Your task to perform on an android device: toggle javascript in the chrome app Image 0: 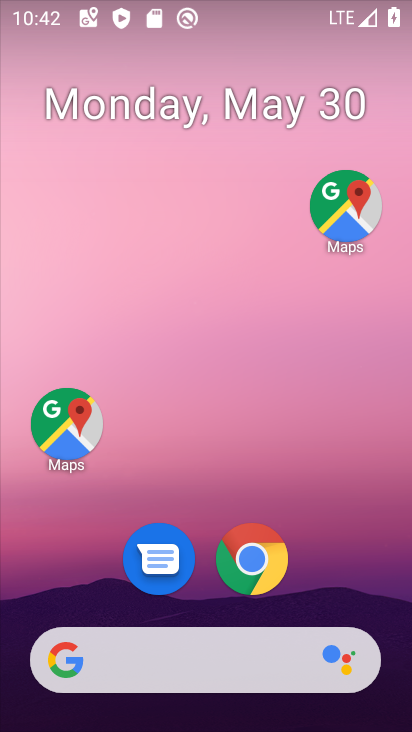
Step 0: click (254, 561)
Your task to perform on an android device: toggle javascript in the chrome app Image 1: 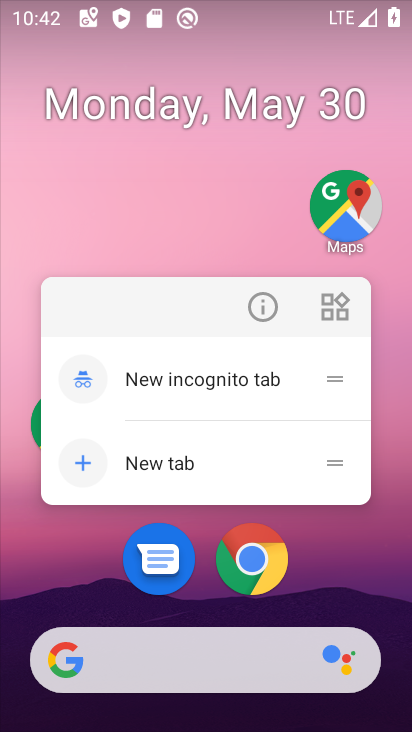
Step 1: click (254, 561)
Your task to perform on an android device: toggle javascript in the chrome app Image 2: 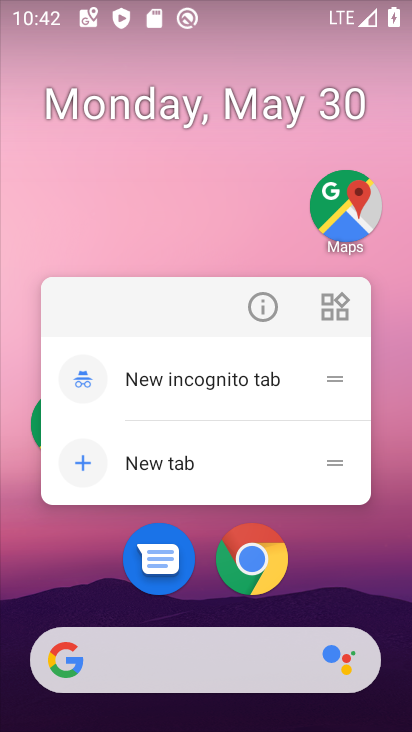
Step 2: click (338, 574)
Your task to perform on an android device: toggle javascript in the chrome app Image 3: 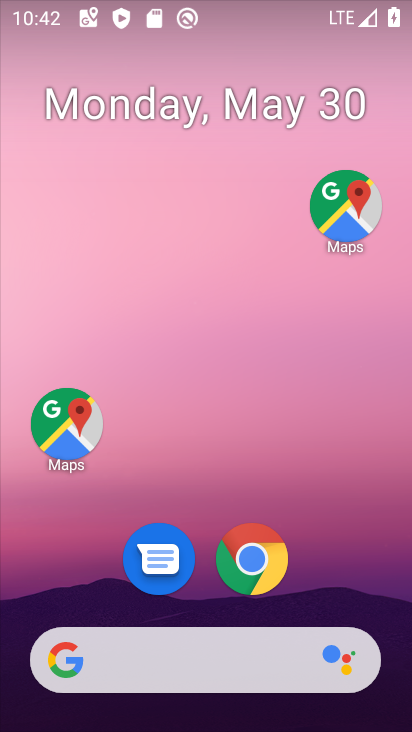
Step 3: drag from (310, 594) to (321, 145)
Your task to perform on an android device: toggle javascript in the chrome app Image 4: 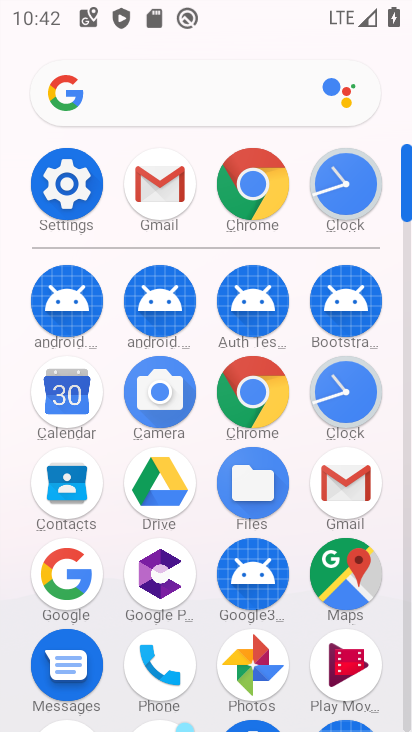
Step 4: click (253, 391)
Your task to perform on an android device: toggle javascript in the chrome app Image 5: 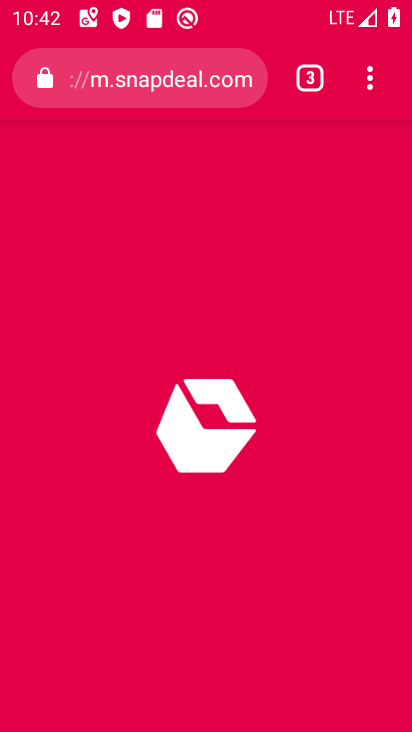
Step 5: click (372, 74)
Your task to perform on an android device: toggle javascript in the chrome app Image 6: 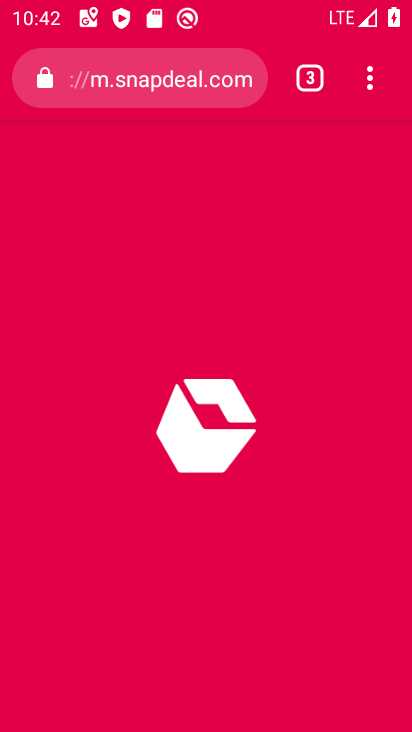
Step 6: drag from (371, 78) to (400, 258)
Your task to perform on an android device: toggle javascript in the chrome app Image 7: 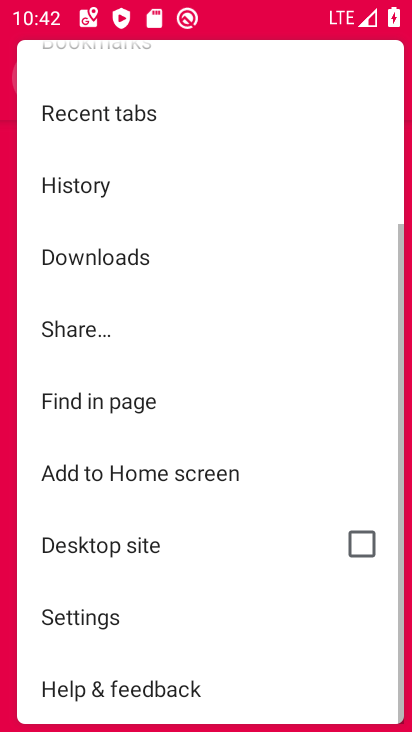
Step 7: click (94, 620)
Your task to perform on an android device: toggle javascript in the chrome app Image 8: 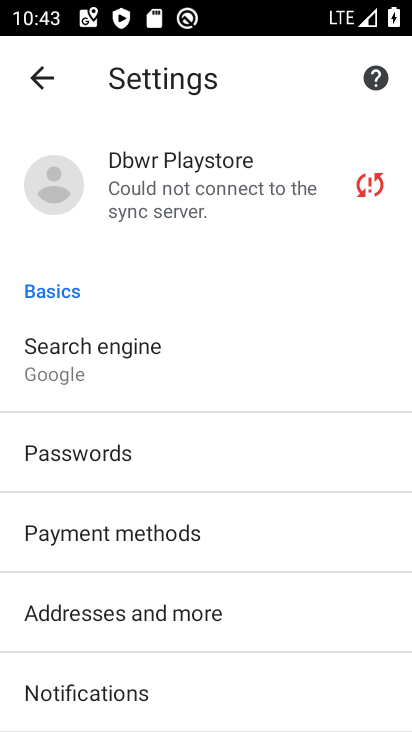
Step 8: drag from (171, 604) to (218, 219)
Your task to perform on an android device: toggle javascript in the chrome app Image 9: 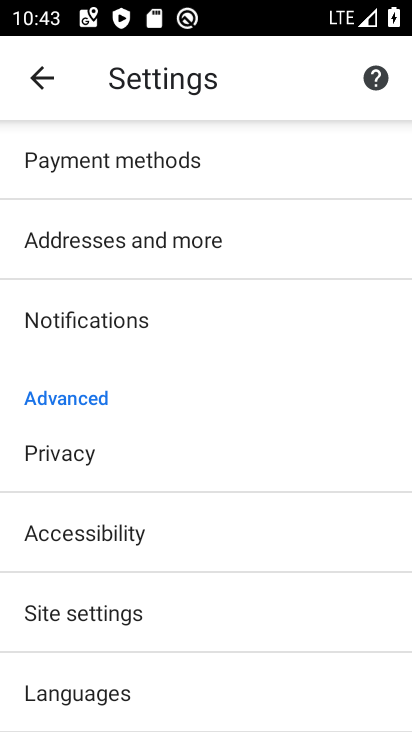
Step 9: click (242, 210)
Your task to perform on an android device: toggle javascript in the chrome app Image 10: 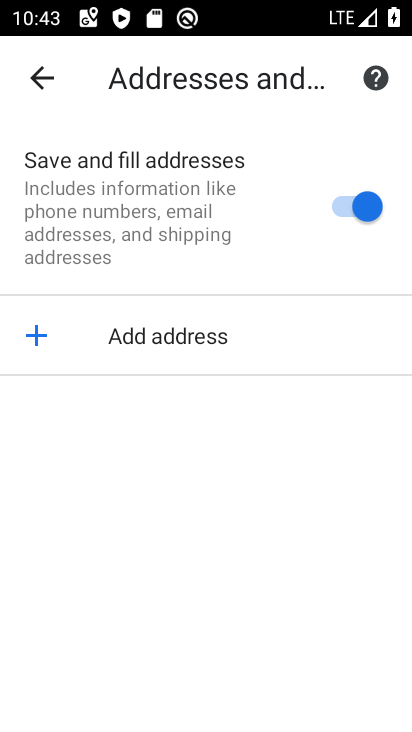
Step 10: click (46, 86)
Your task to perform on an android device: toggle javascript in the chrome app Image 11: 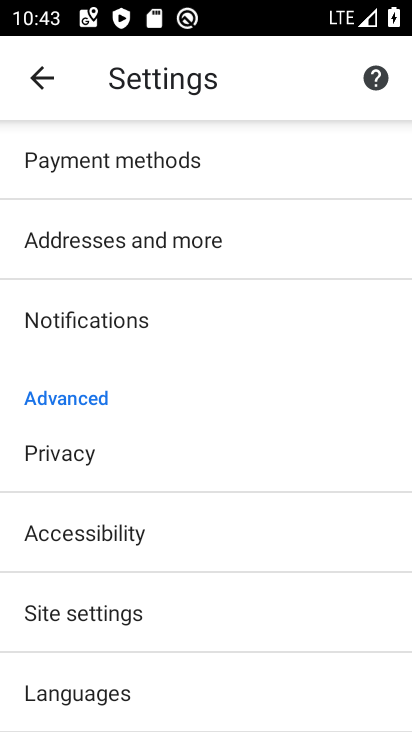
Step 11: click (190, 626)
Your task to perform on an android device: toggle javascript in the chrome app Image 12: 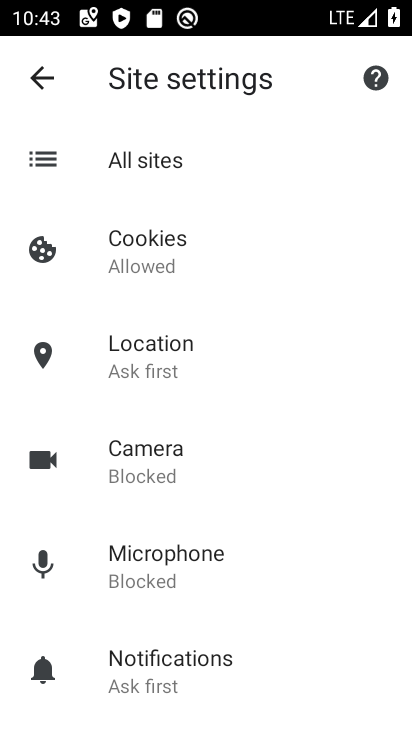
Step 12: drag from (198, 610) to (212, 251)
Your task to perform on an android device: toggle javascript in the chrome app Image 13: 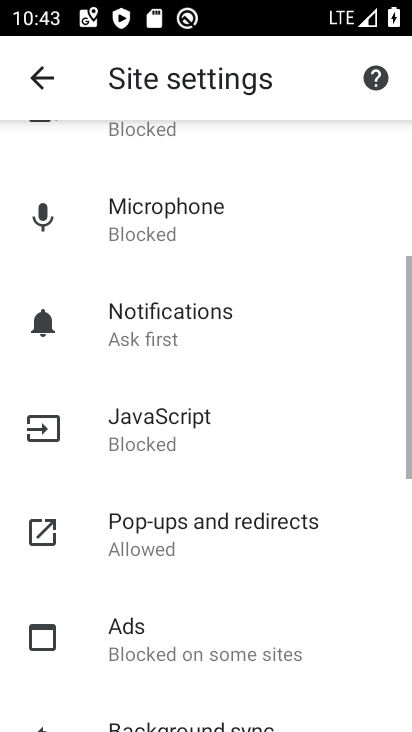
Step 13: click (188, 439)
Your task to perform on an android device: toggle javascript in the chrome app Image 14: 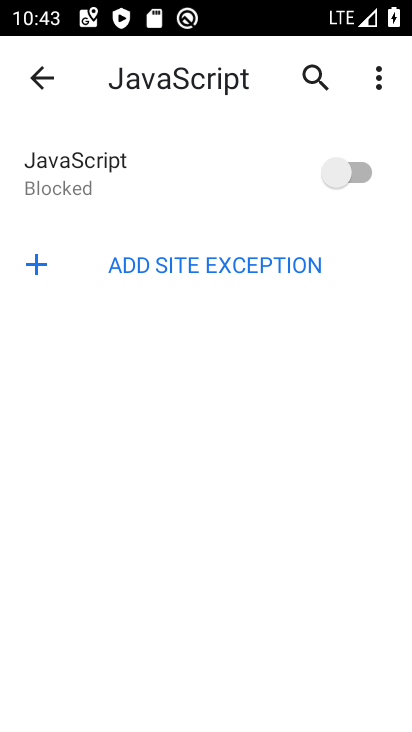
Step 14: click (359, 183)
Your task to perform on an android device: toggle javascript in the chrome app Image 15: 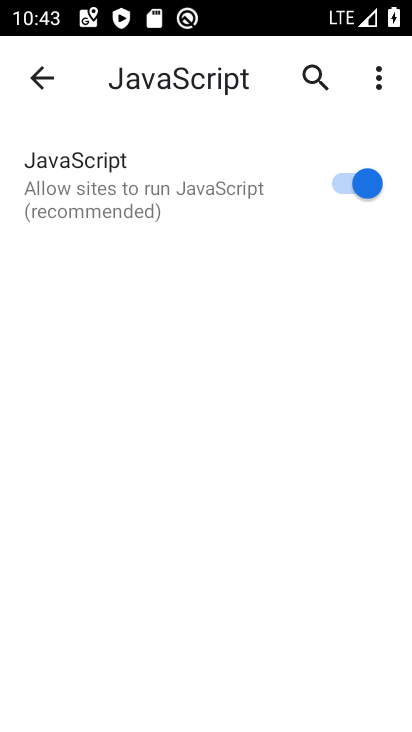
Step 15: task complete